Your task to perform on an android device: Open the phone app and click the voicemail tab. Image 0: 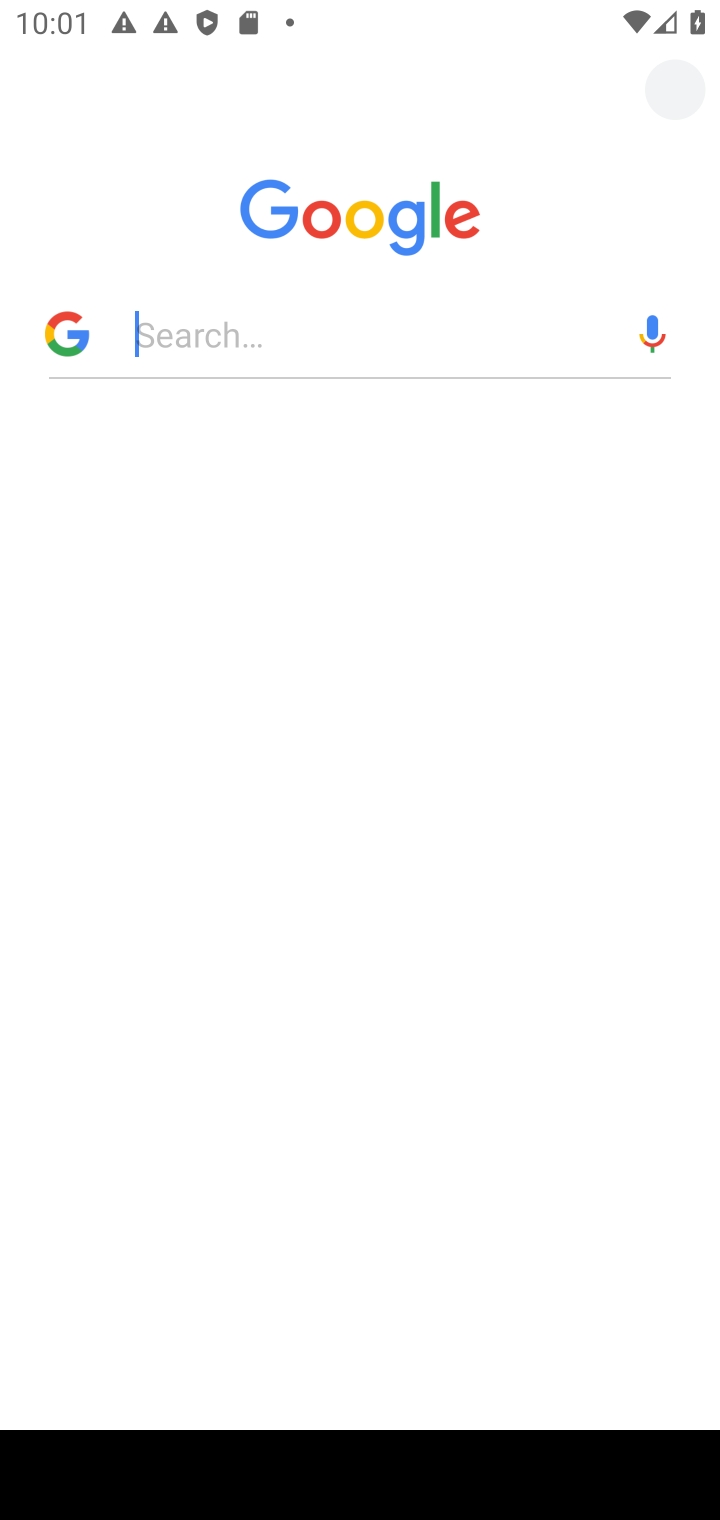
Step 0: press home button
Your task to perform on an android device: Open the phone app and click the voicemail tab. Image 1: 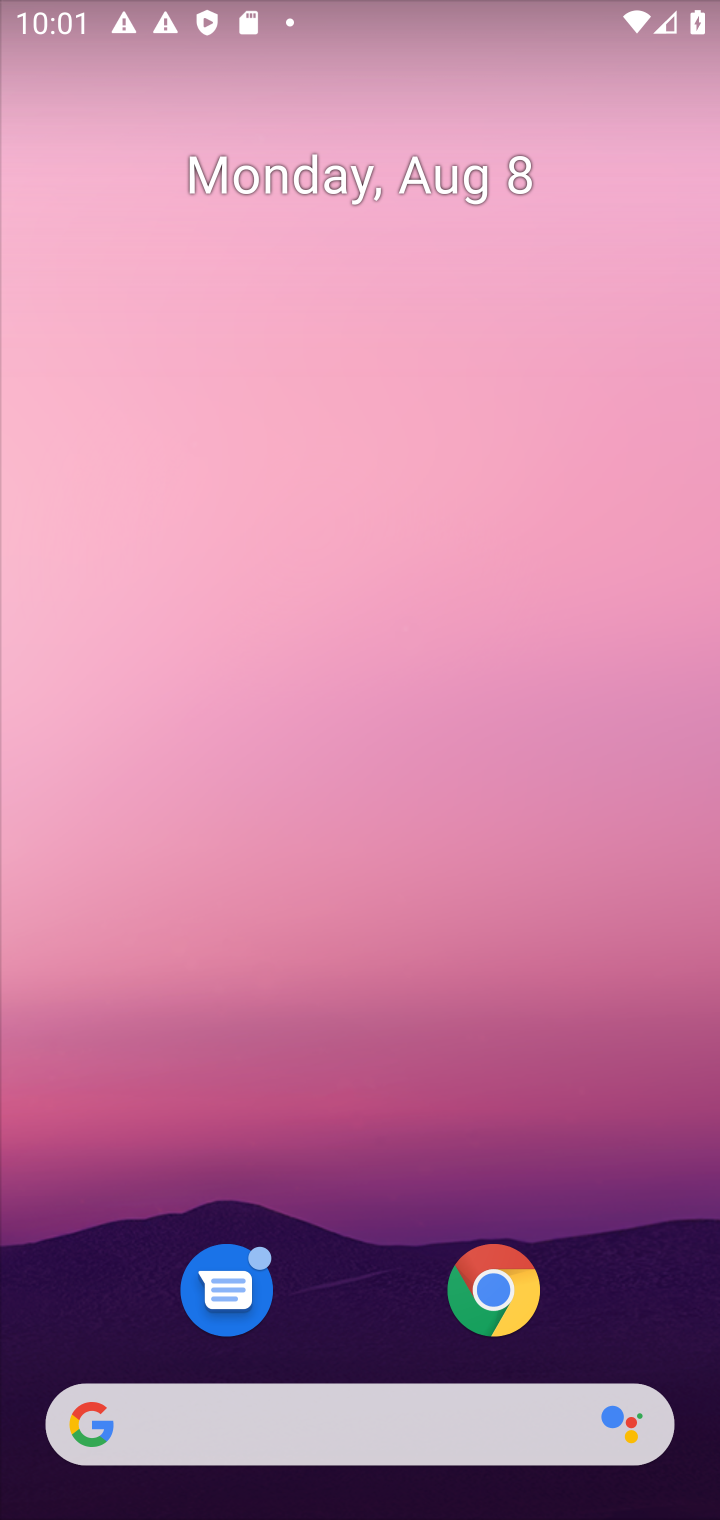
Step 1: drag from (342, 1235) to (358, 95)
Your task to perform on an android device: Open the phone app and click the voicemail tab. Image 2: 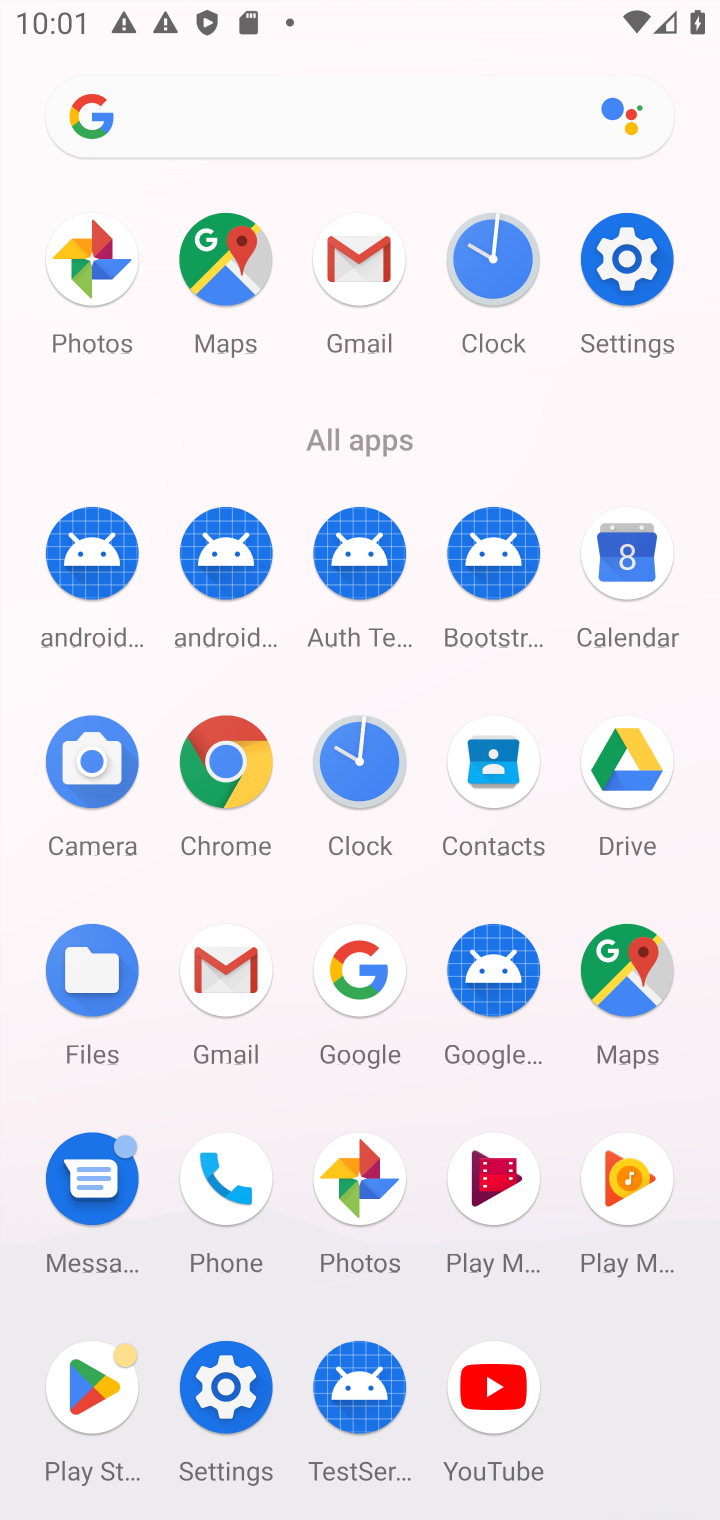
Step 2: click (244, 1218)
Your task to perform on an android device: Open the phone app and click the voicemail tab. Image 3: 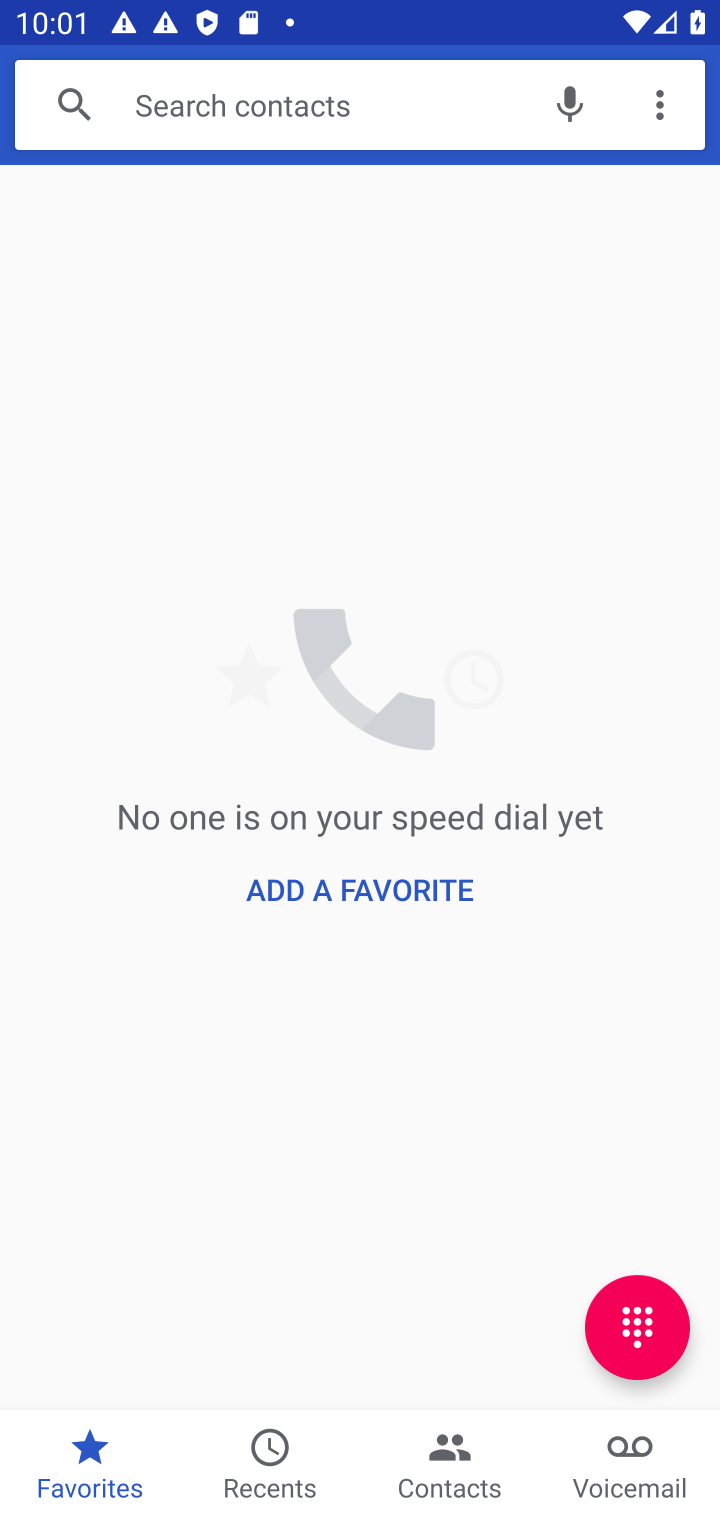
Step 3: click (607, 1449)
Your task to perform on an android device: Open the phone app and click the voicemail tab. Image 4: 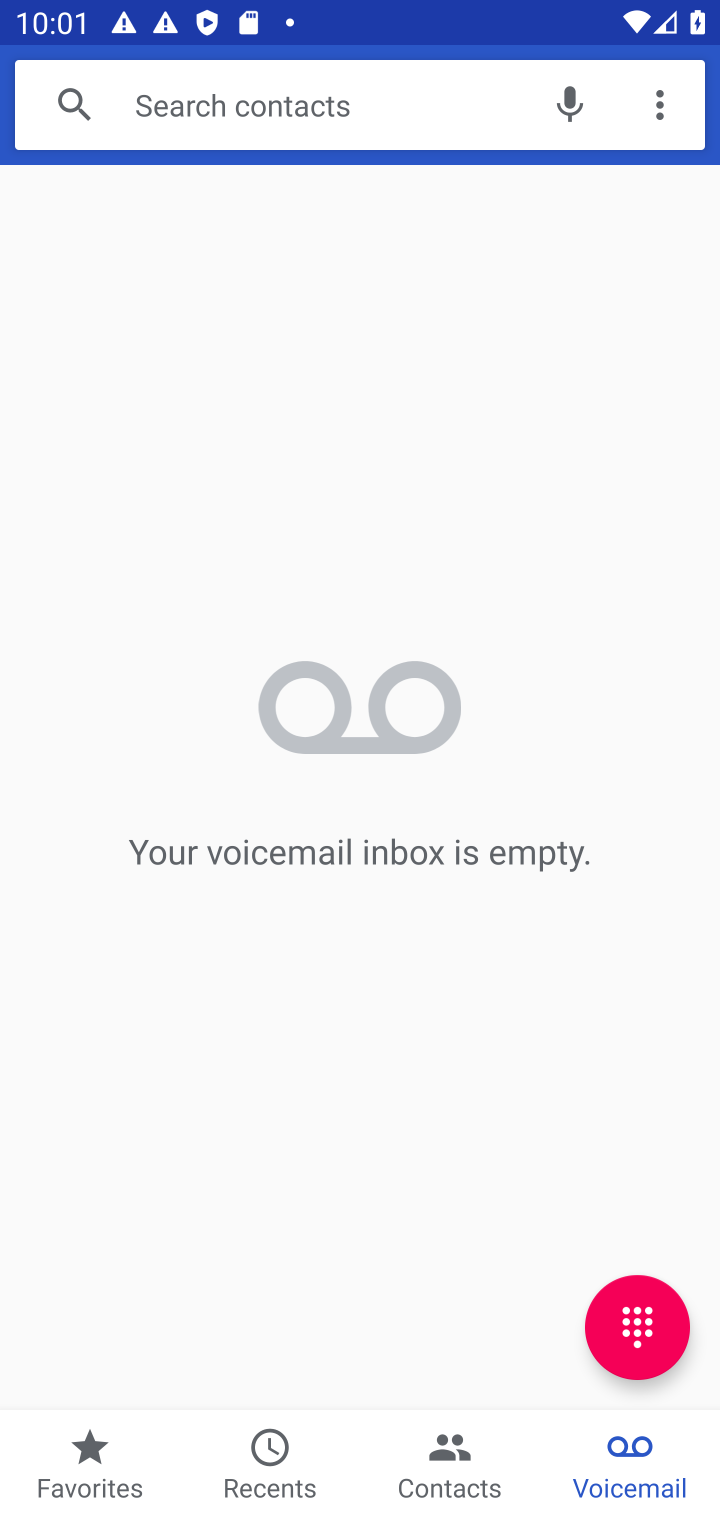
Step 4: task complete